Your task to perform on an android device: turn vacation reply on in the gmail app Image 0: 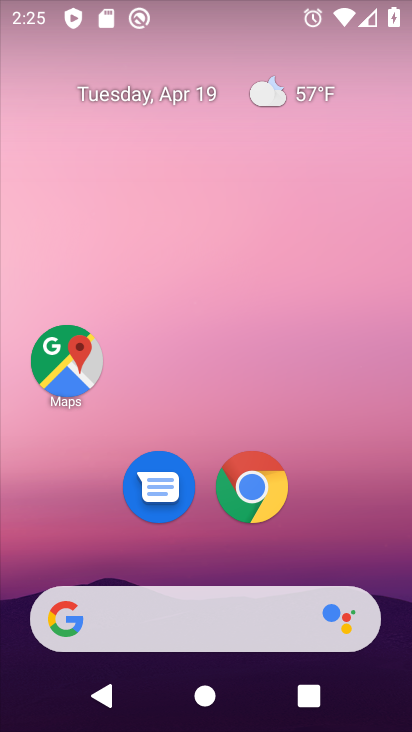
Step 0: drag from (358, 523) to (359, 115)
Your task to perform on an android device: turn vacation reply on in the gmail app Image 1: 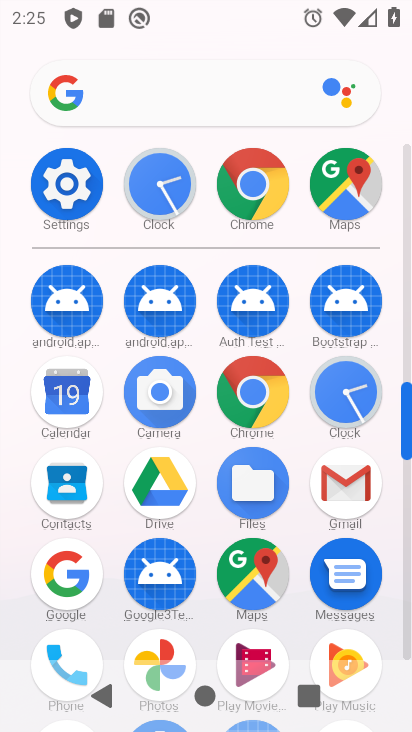
Step 1: click (337, 485)
Your task to perform on an android device: turn vacation reply on in the gmail app Image 2: 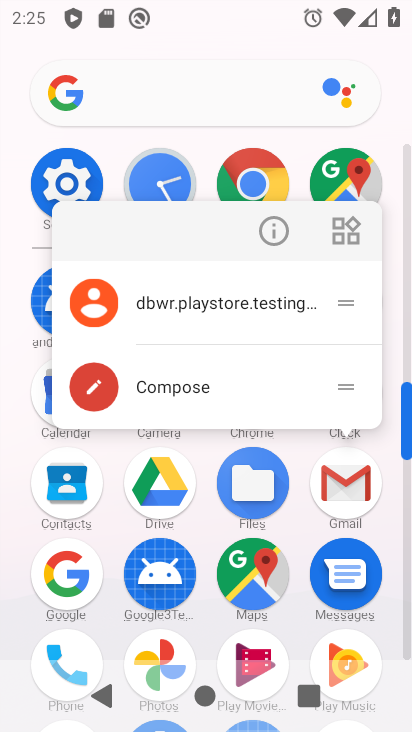
Step 2: click (333, 489)
Your task to perform on an android device: turn vacation reply on in the gmail app Image 3: 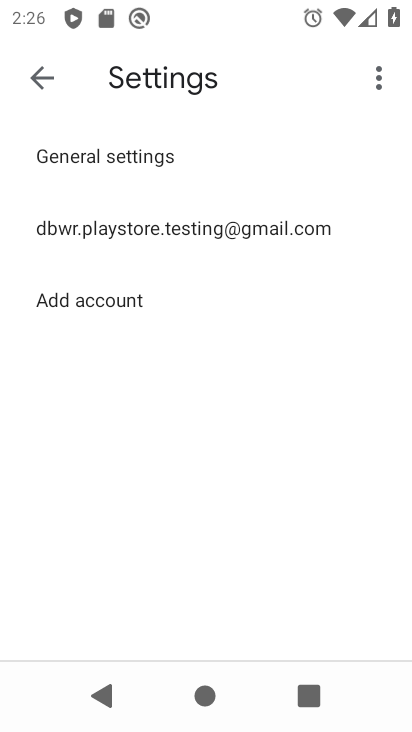
Step 3: click (253, 236)
Your task to perform on an android device: turn vacation reply on in the gmail app Image 4: 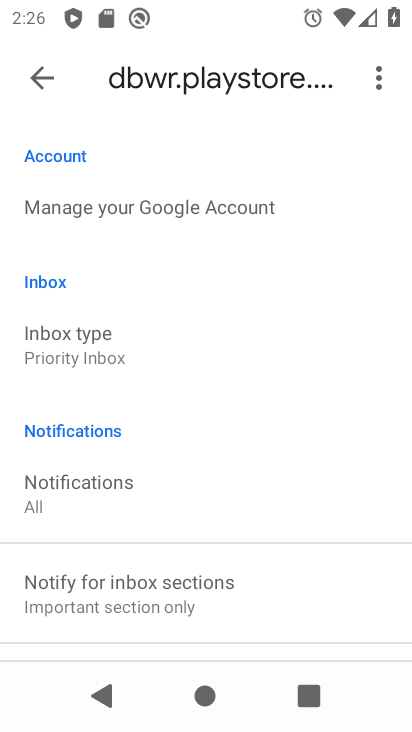
Step 4: drag from (201, 459) to (237, 177)
Your task to perform on an android device: turn vacation reply on in the gmail app Image 5: 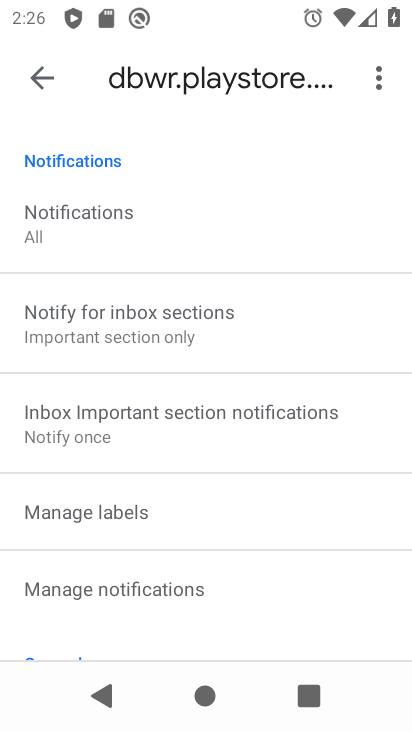
Step 5: drag from (240, 529) to (243, 286)
Your task to perform on an android device: turn vacation reply on in the gmail app Image 6: 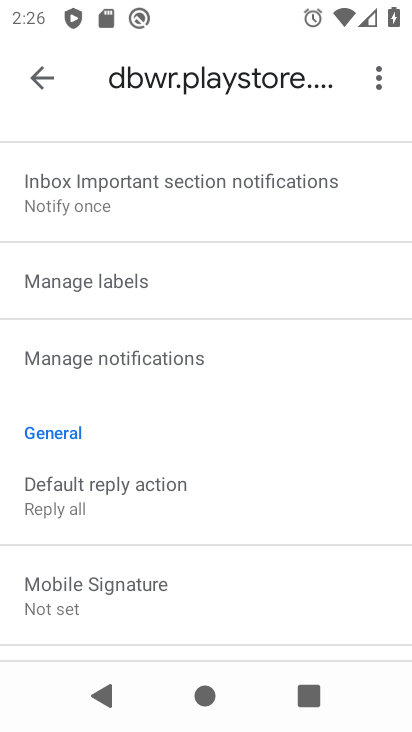
Step 6: drag from (244, 532) to (268, 291)
Your task to perform on an android device: turn vacation reply on in the gmail app Image 7: 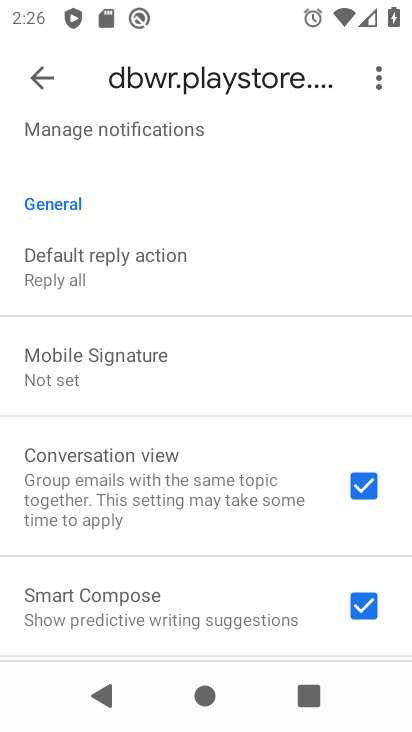
Step 7: drag from (248, 467) to (271, 224)
Your task to perform on an android device: turn vacation reply on in the gmail app Image 8: 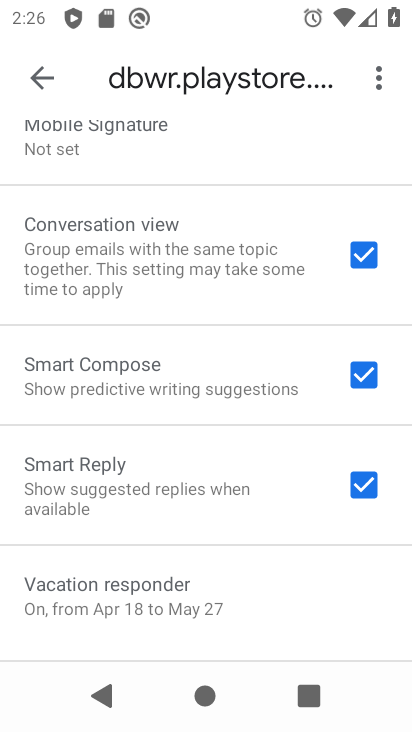
Step 8: click (177, 575)
Your task to perform on an android device: turn vacation reply on in the gmail app Image 9: 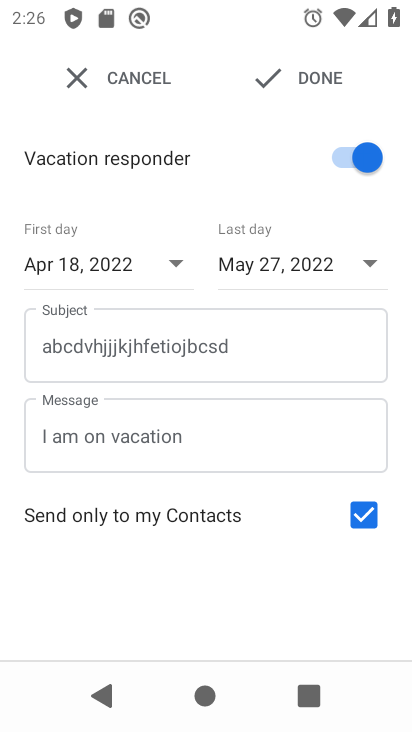
Step 9: task complete